Your task to perform on an android device: Open my contact list Image 0: 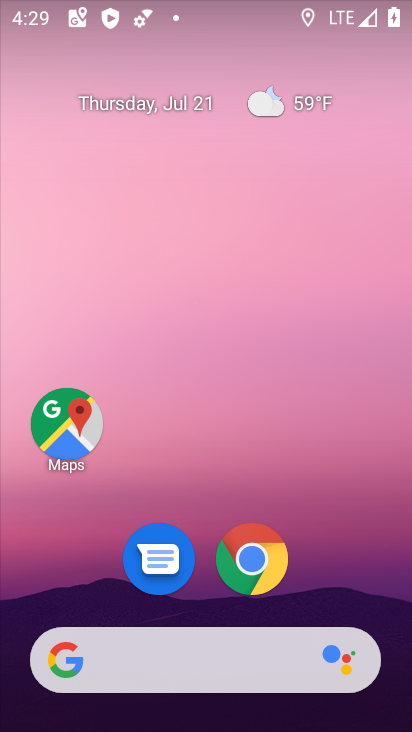
Step 0: drag from (69, 585) to (288, 11)
Your task to perform on an android device: Open my contact list Image 1: 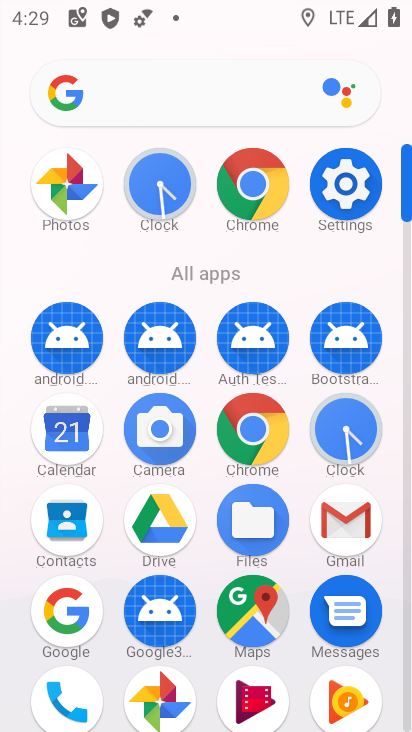
Step 1: click (59, 522)
Your task to perform on an android device: Open my contact list Image 2: 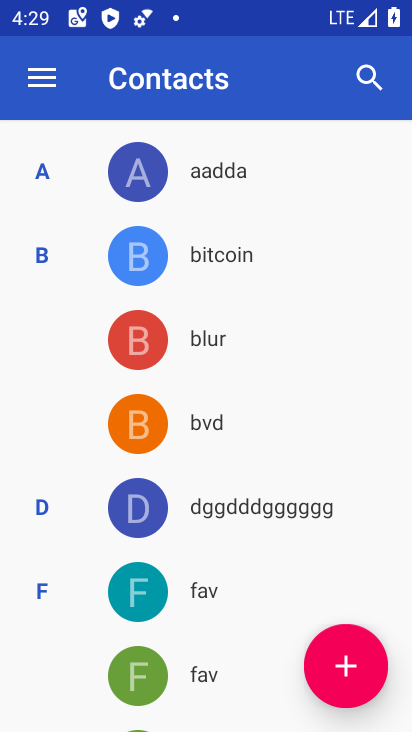
Step 2: task complete